Your task to perform on an android device: refresh tabs in the chrome app Image 0: 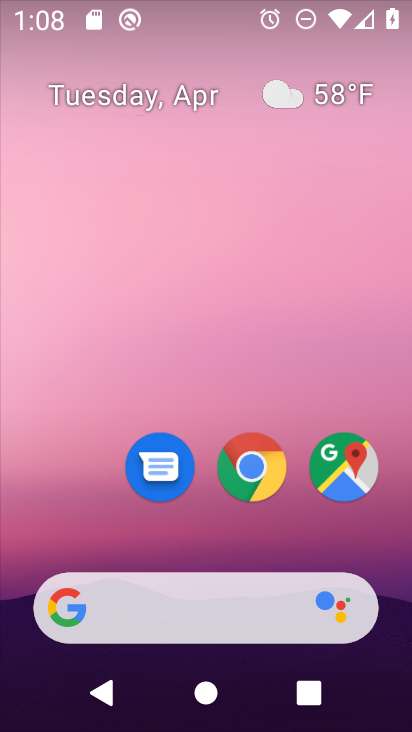
Step 0: click (239, 475)
Your task to perform on an android device: refresh tabs in the chrome app Image 1: 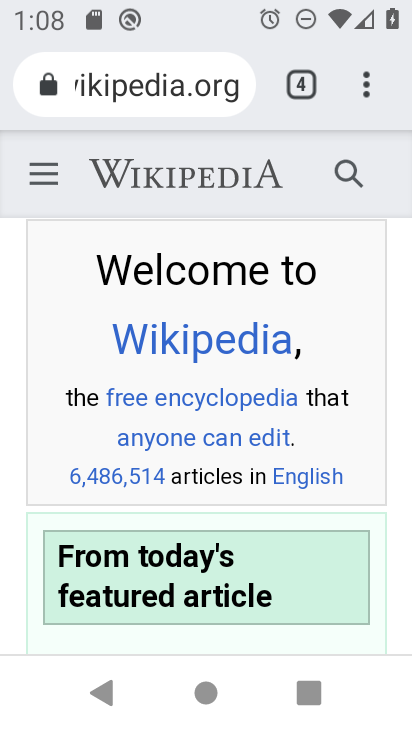
Step 1: click (369, 67)
Your task to perform on an android device: refresh tabs in the chrome app Image 2: 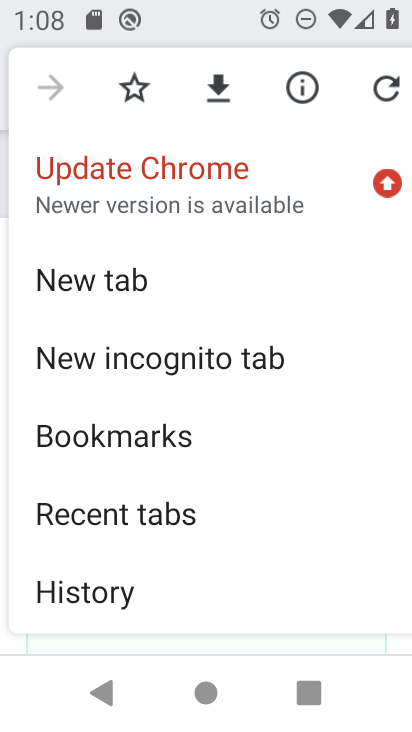
Step 2: click (371, 89)
Your task to perform on an android device: refresh tabs in the chrome app Image 3: 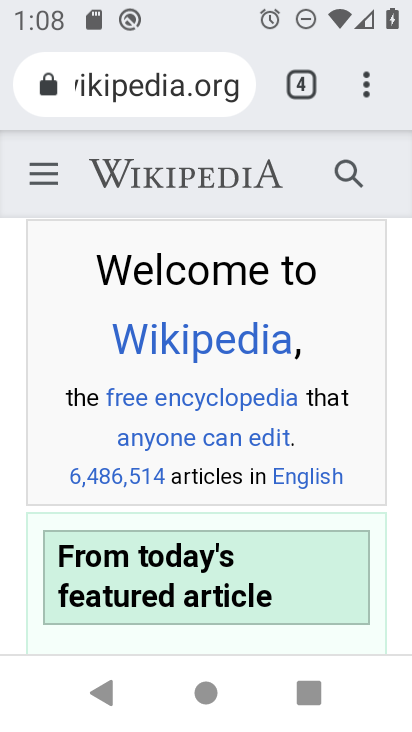
Step 3: task complete